Your task to perform on an android device: open app "Google Photos" Image 0: 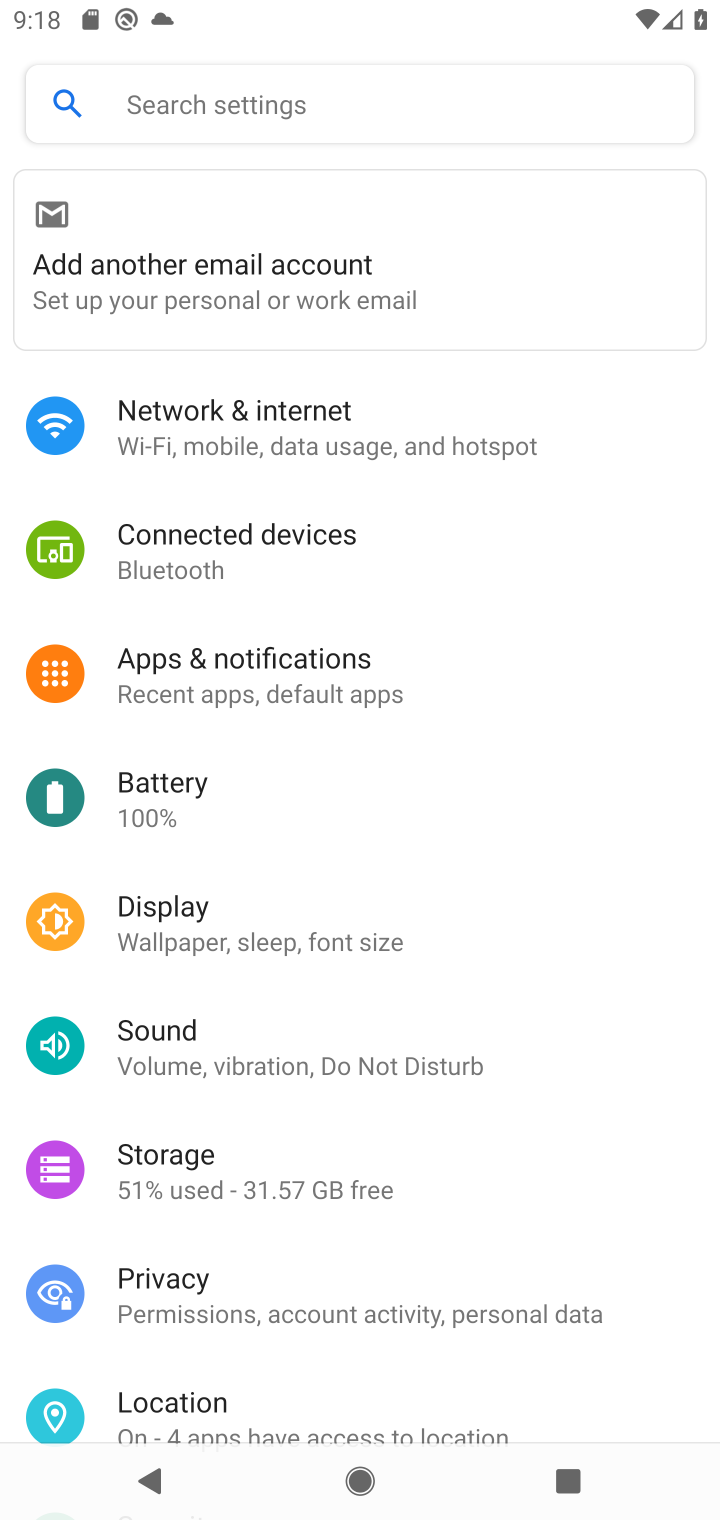
Step 0: press home button
Your task to perform on an android device: open app "Google Photos" Image 1: 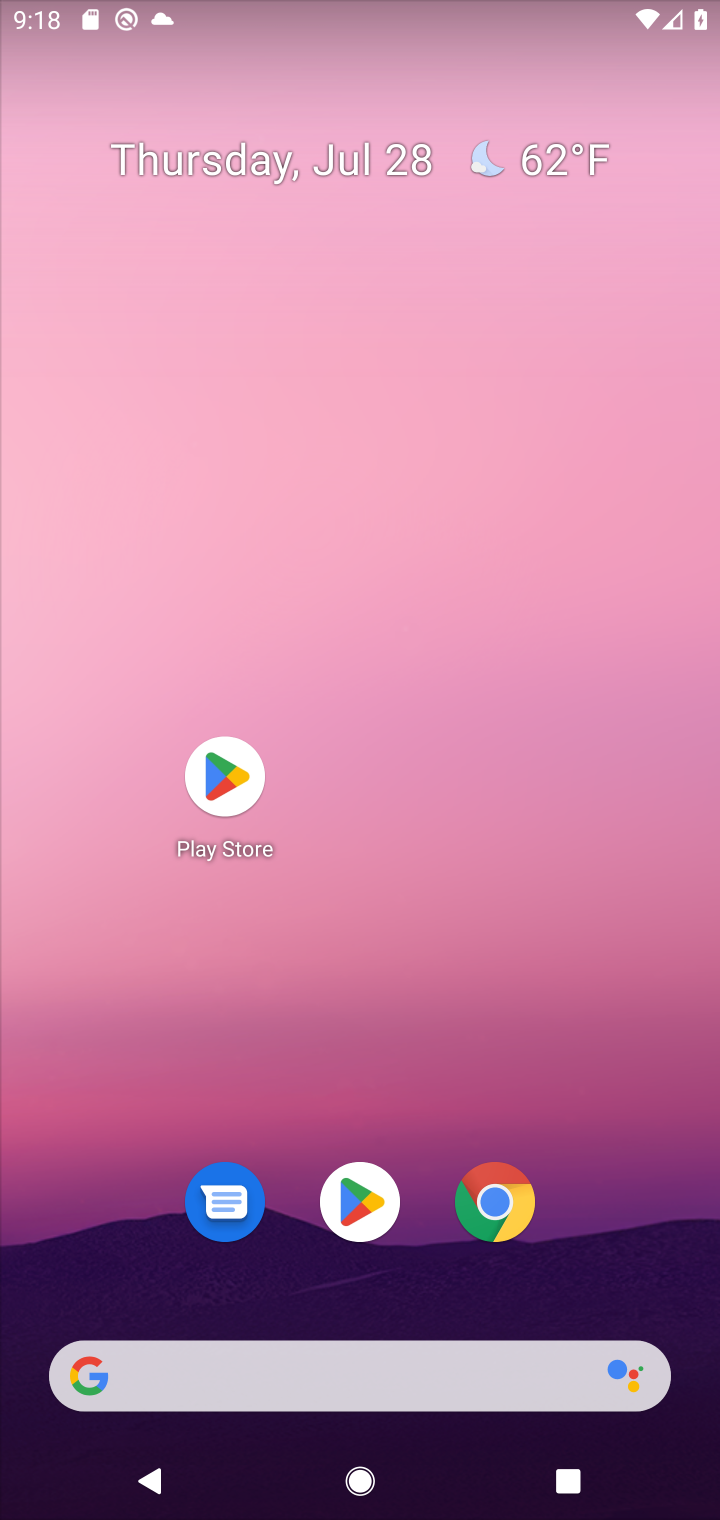
Step 1: click (358, 1211)
Your task to perform on an android device: open app "Google Photos" Image 2: 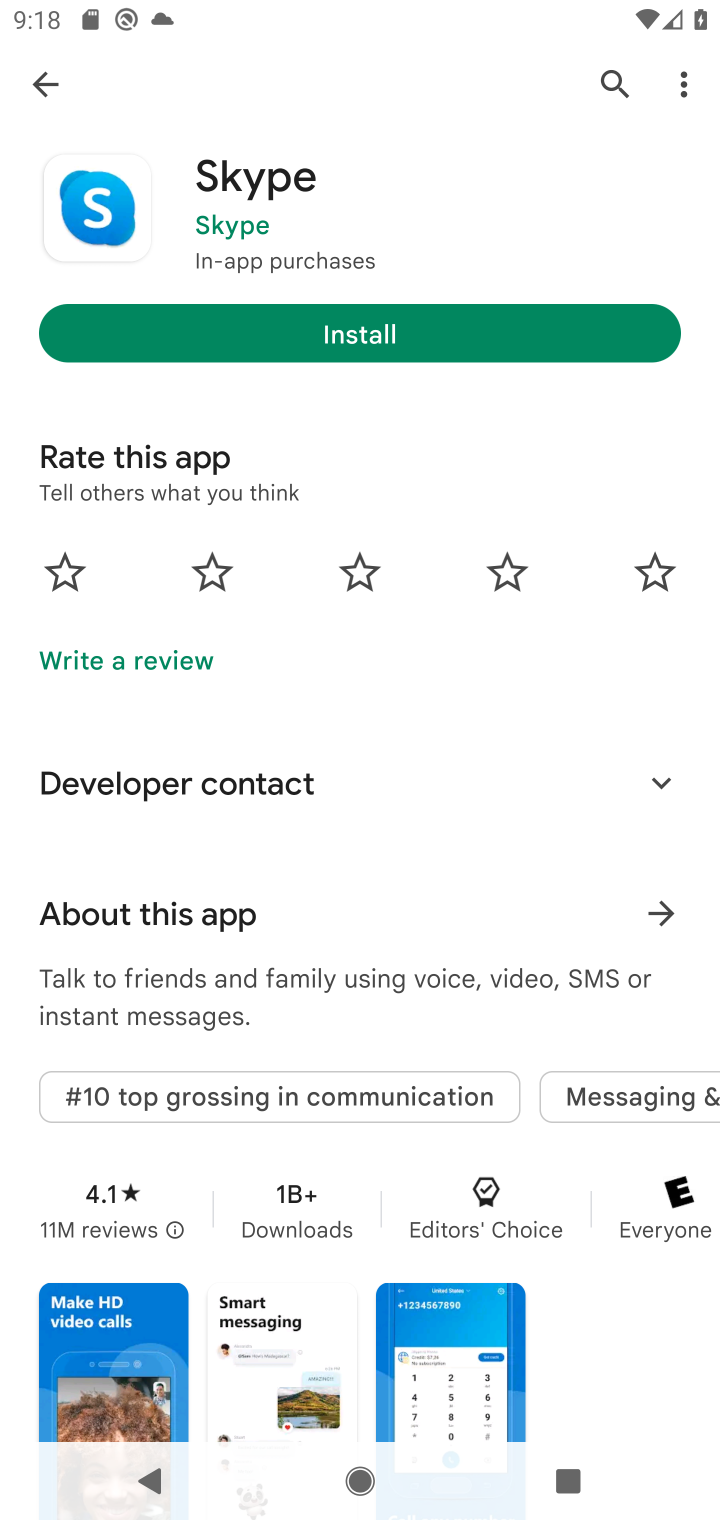
Step 2: click (46, 75)
Your task to perform on an android device: open app "Google Photos" Image 3: 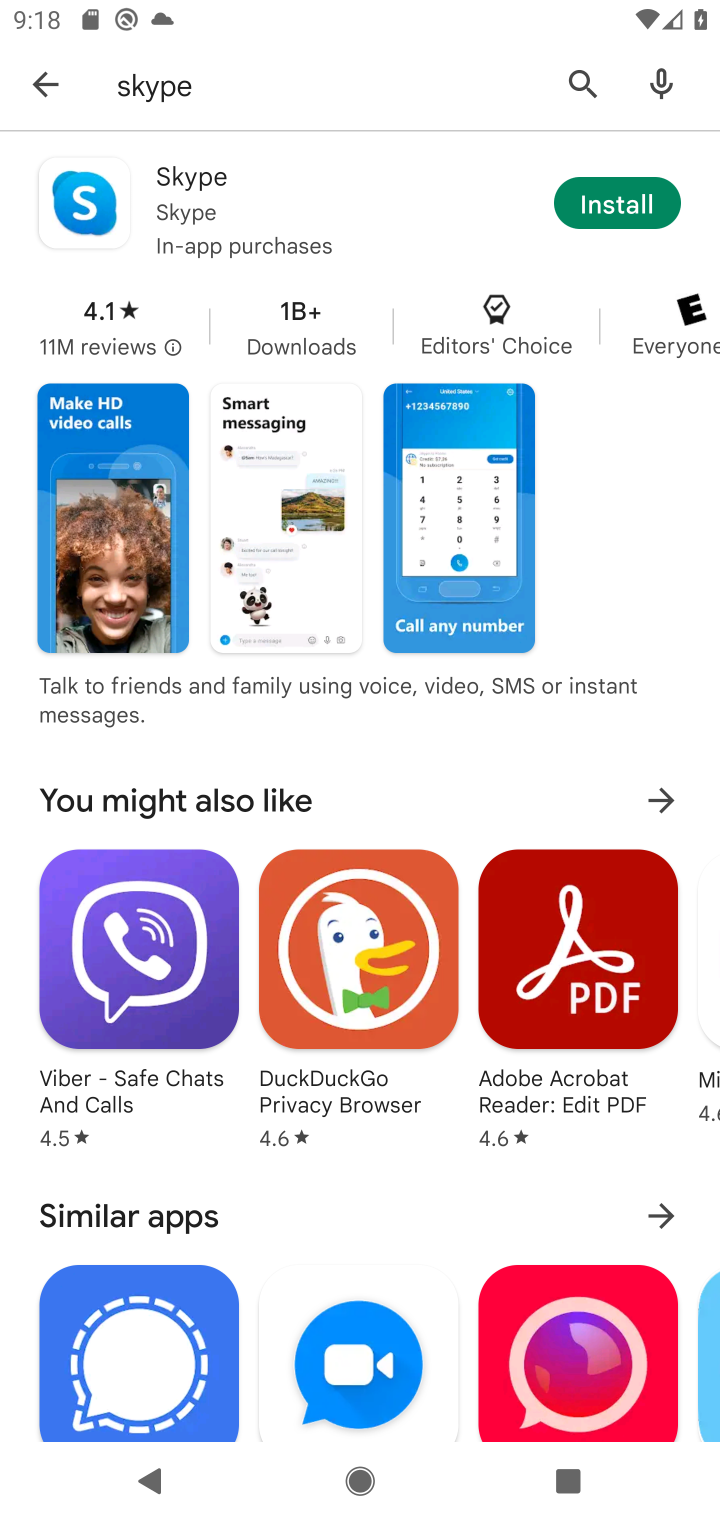
Step 3: click (578, 81)
Your task to perform on an android device: open app "Google Photos" Image 4: 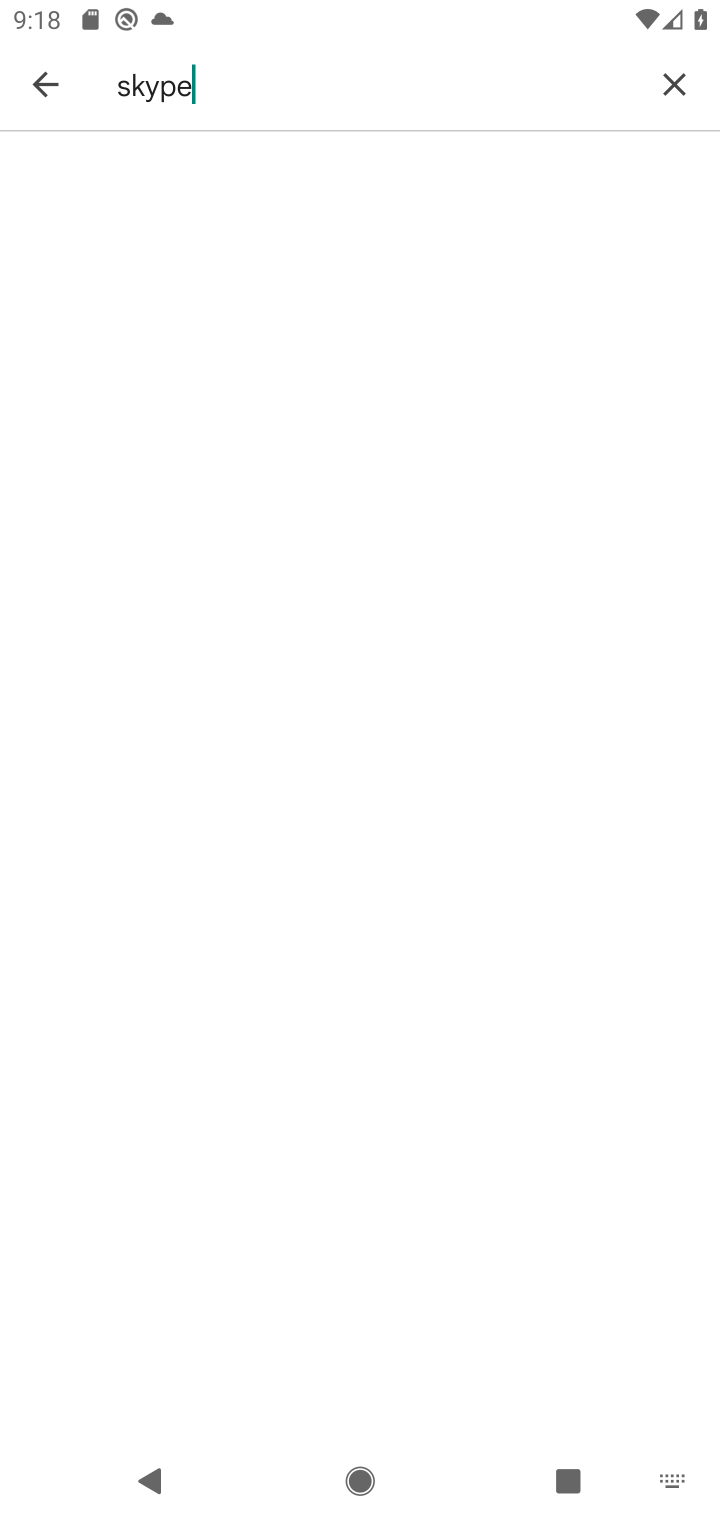
Step 4: click (578, 81)
Your task to perform on an android device: open app "Google Photos" Image 5: 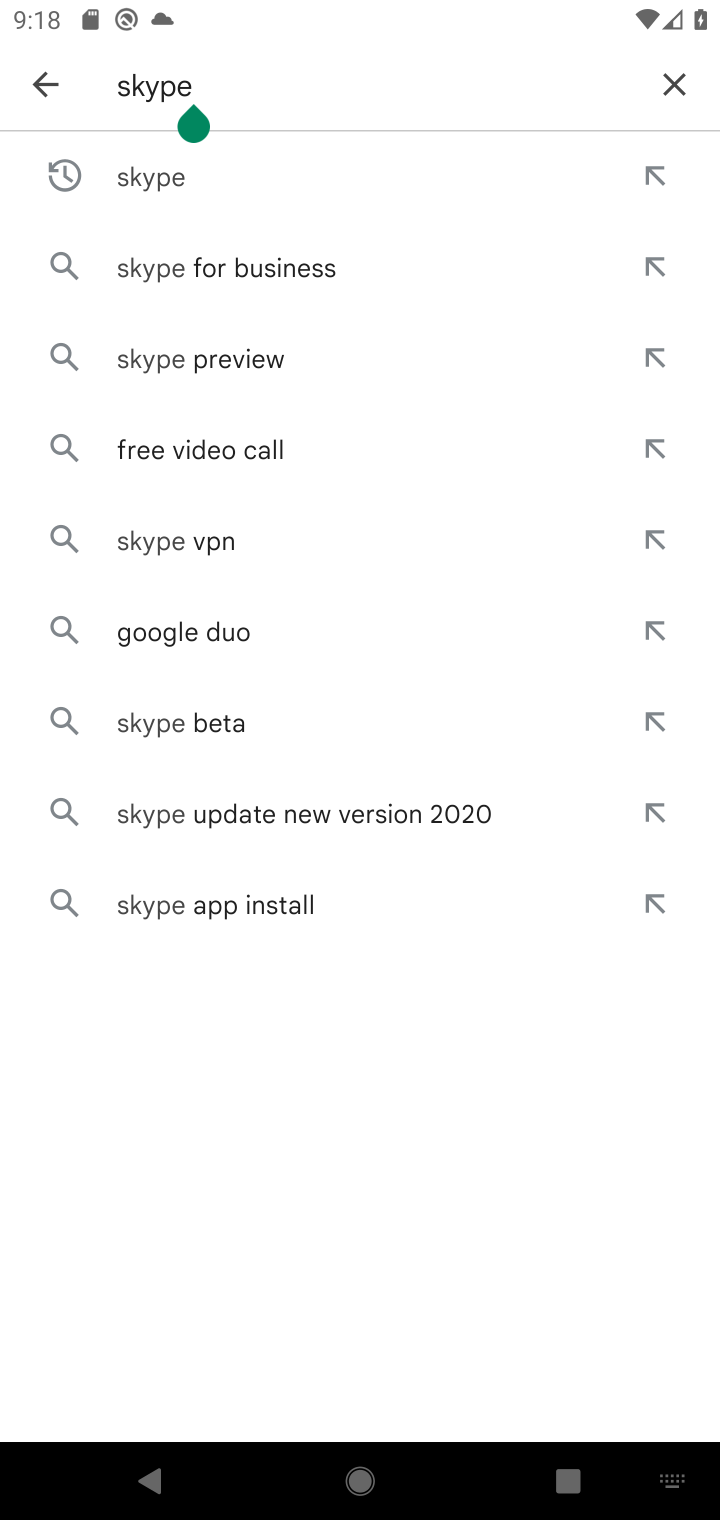
Step 5: click (686, 93)
Your task to perform on an android device: open app "Google Photos" Image 6: 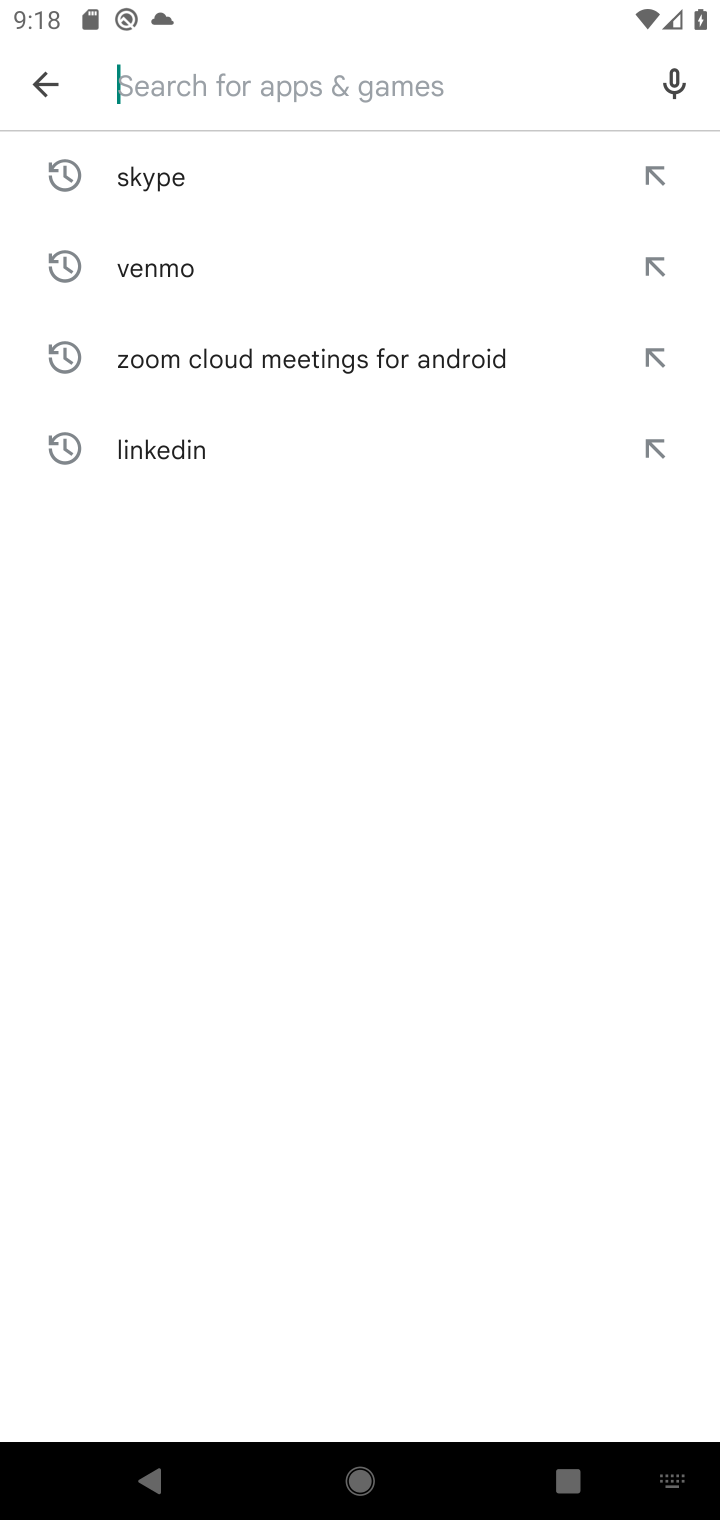
Step 6: click (317, 59)
Your task to perform on an android device: open app "Google Photos" Image 7: 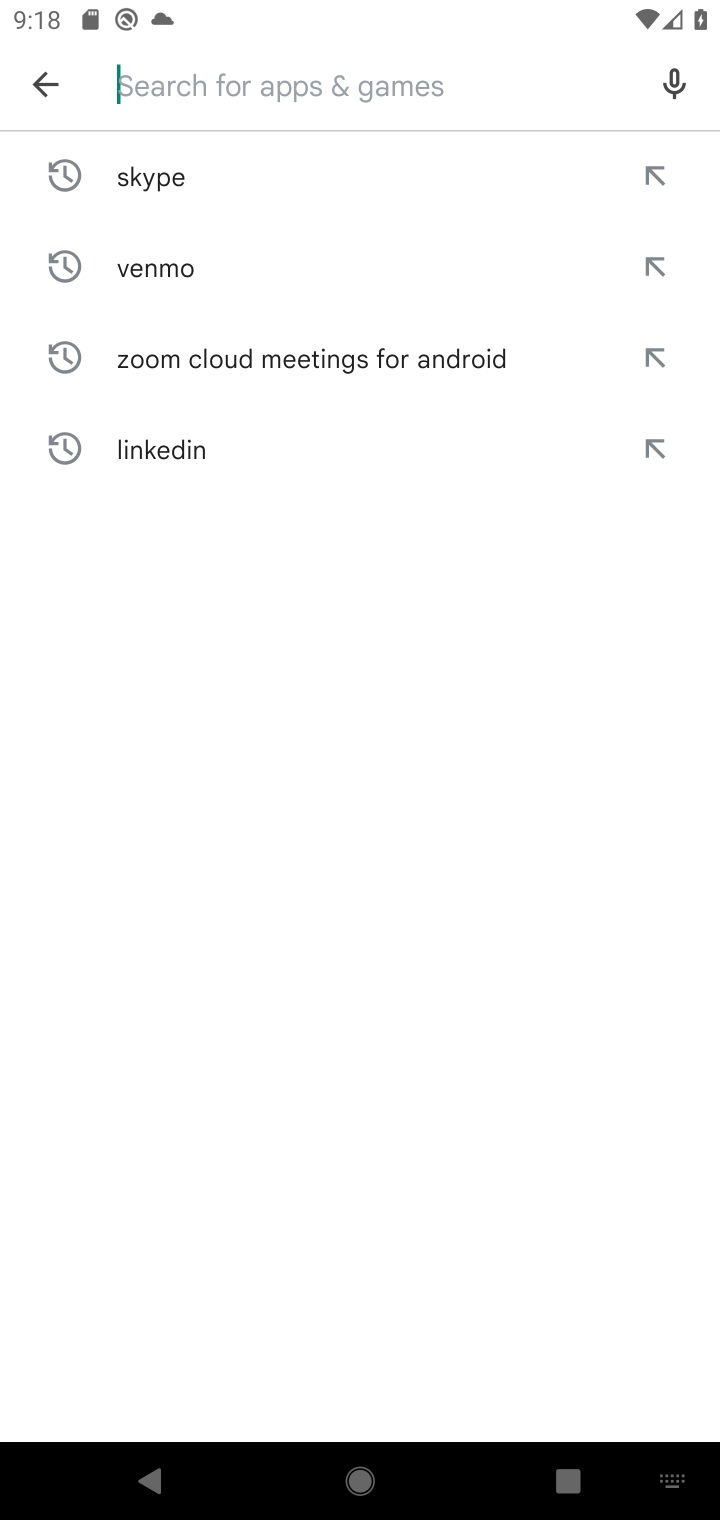
Step 7: type "google photos"
Your task to perform on an android device: open app "Google Photos" Image 8: 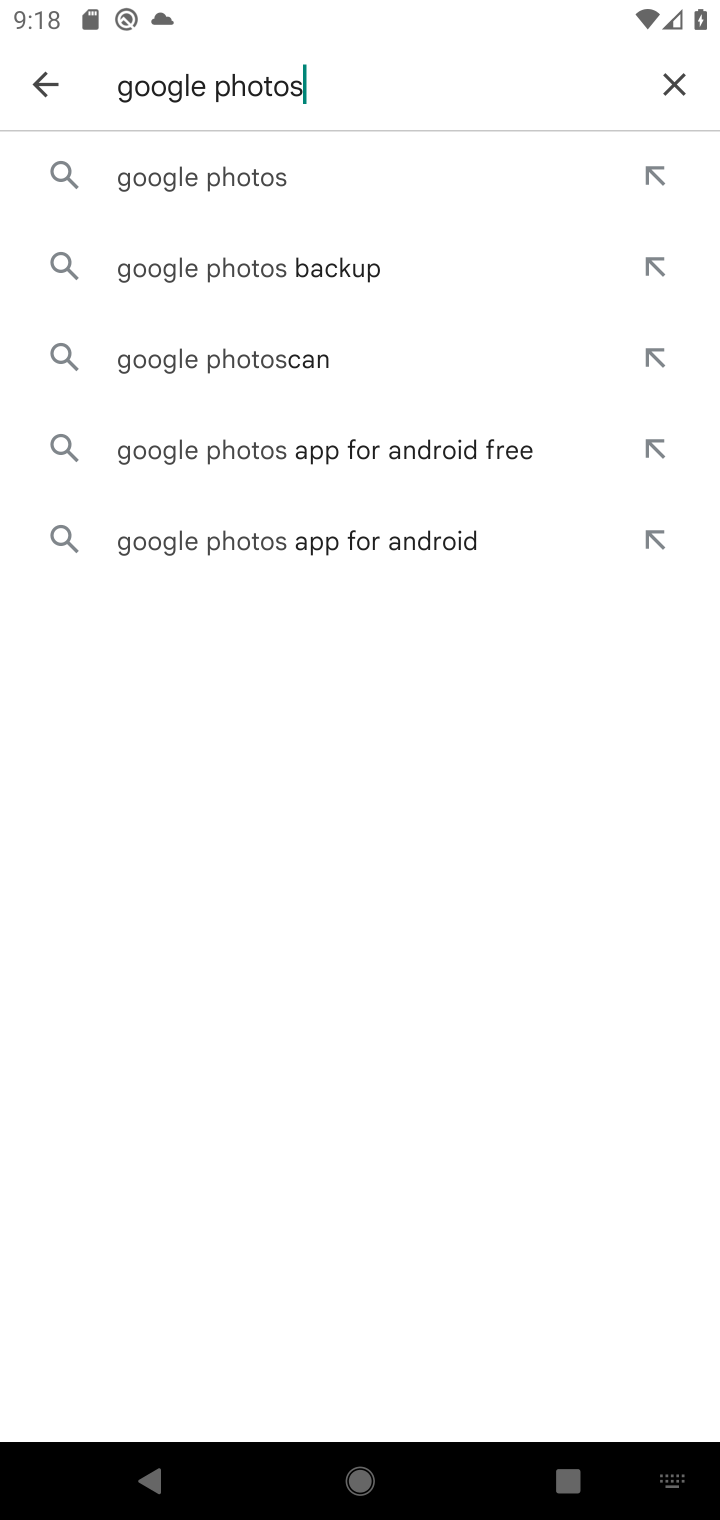
Step 8: click (213, 166)
Your task to perform on an android device: open app "Google Photos" Image 9: 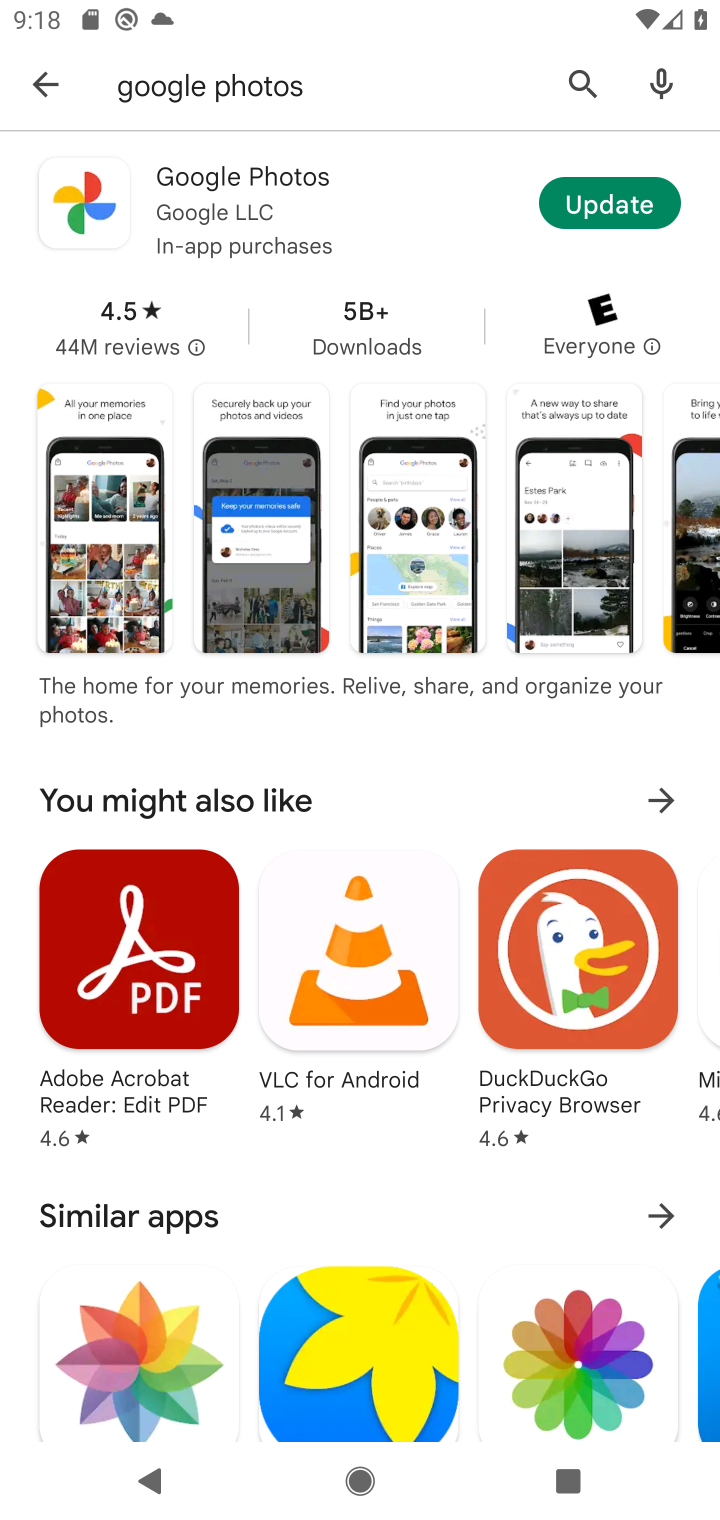
Step 9: click (223, 182)
Your task to perform on an android device: open app "Google Photos" Image 10: 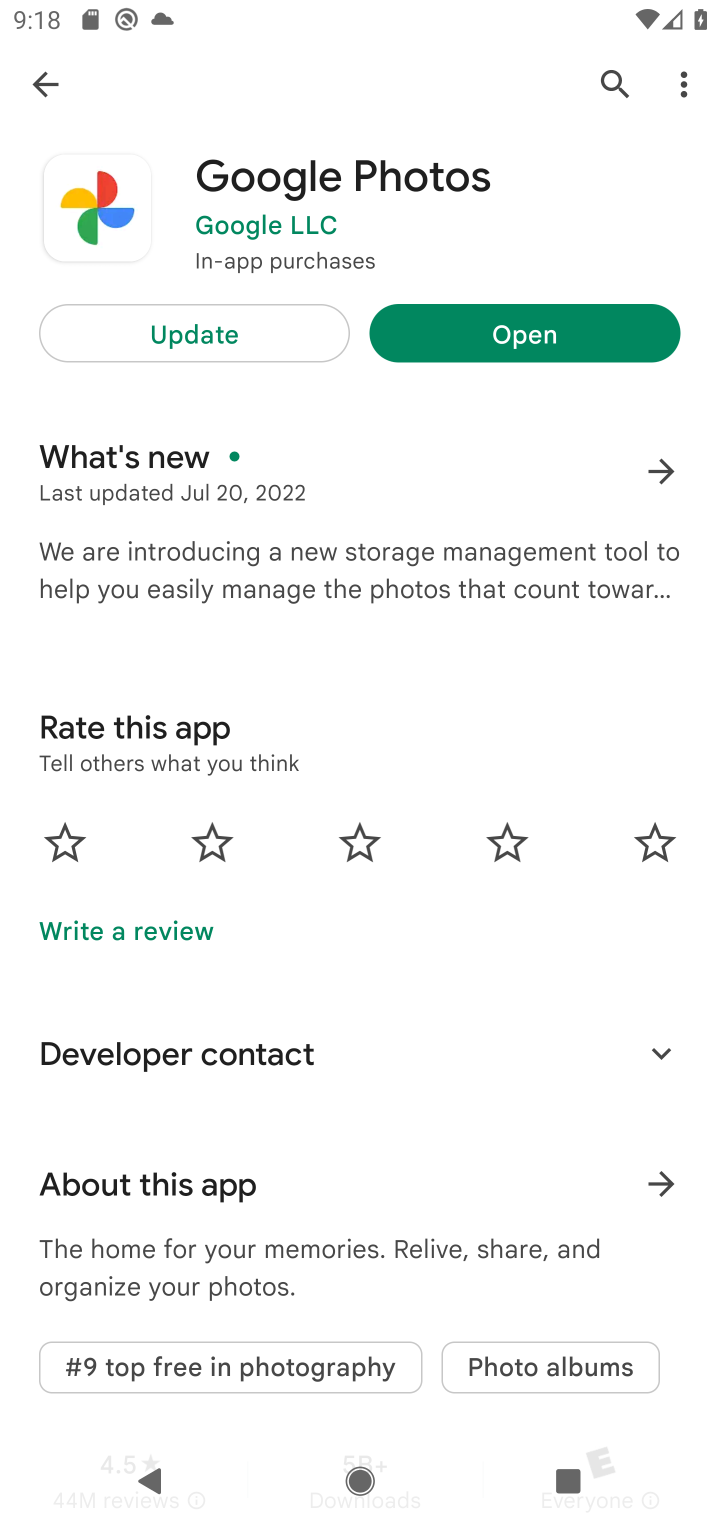
Step 10: click (439, 316)
Your task to perform on an android device: open app "Google Photos" Image 11: 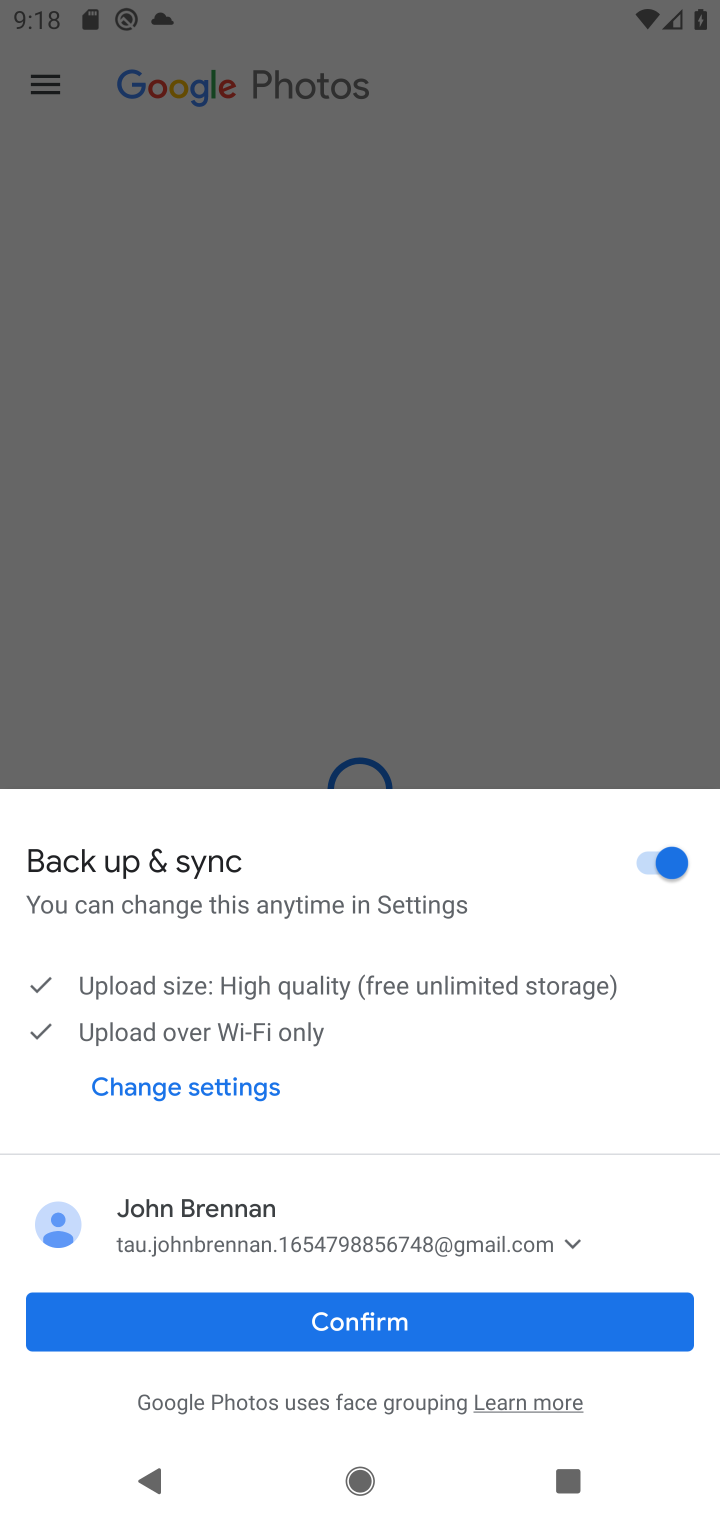
Step 11: click (354, 1328)
Your task to perform on an android device: open app "Google Photos" Image 12: 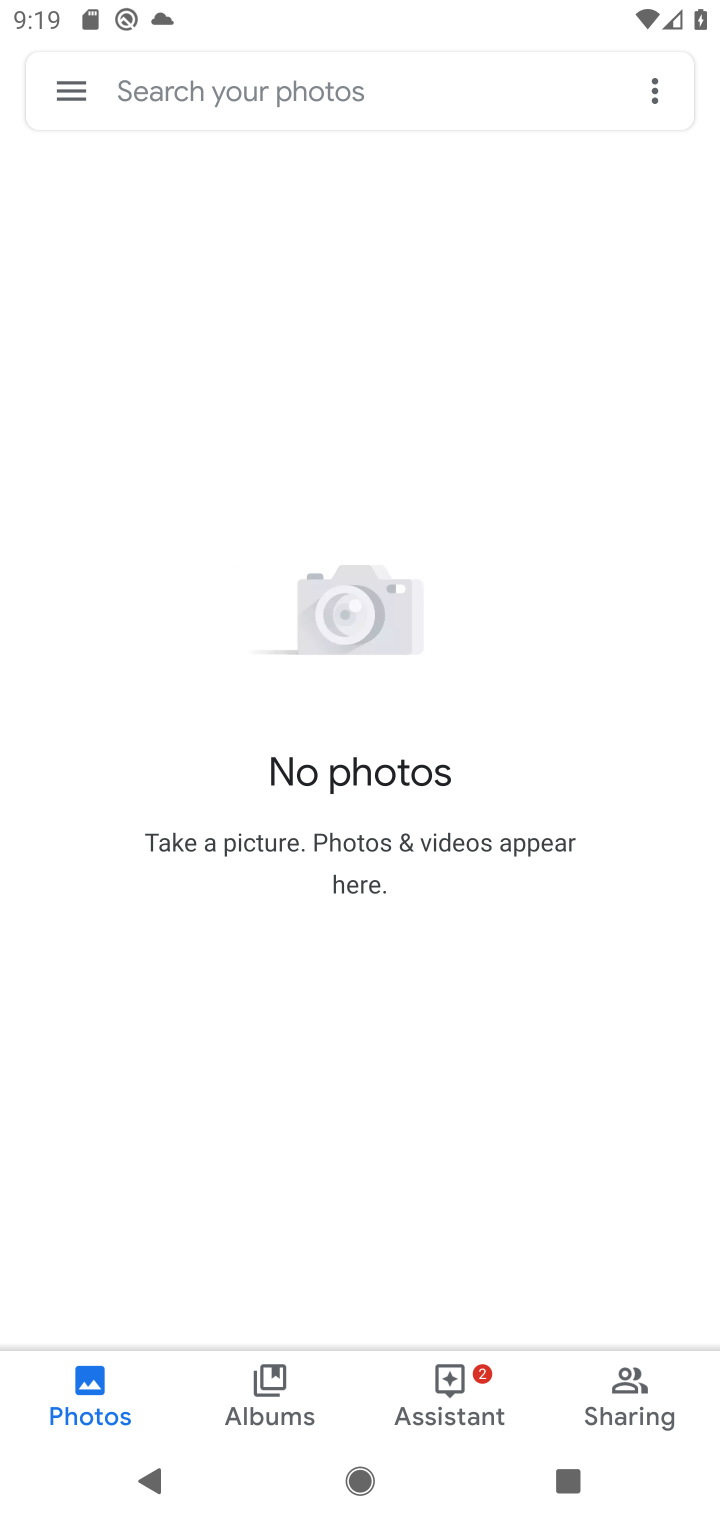
Step 12: task complete